Your task to perform on an android device: set an alarm Image 0: 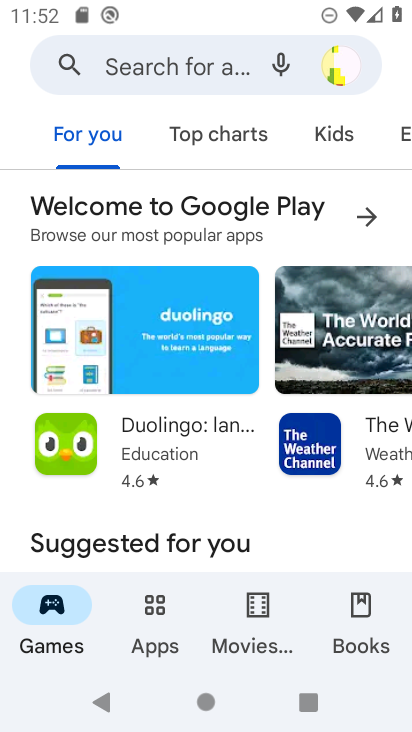
Step 0: press home button
Your task to perform on an android device: set an alarm Image 1: 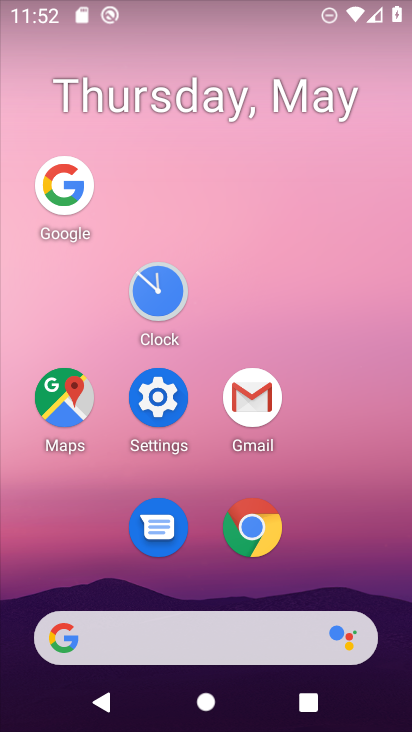
Step 1: click (146, 294)
Your task to perform on an android device: set an alarm Image 2: 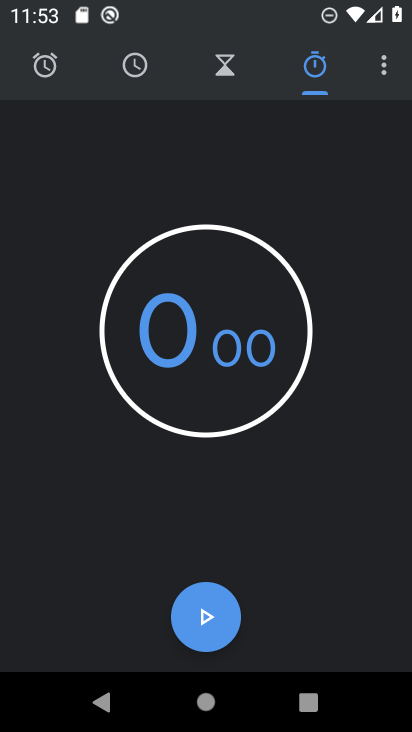
Step 2: click (62, 60)
Your task to perform on an android device: set an alarm Image 3: 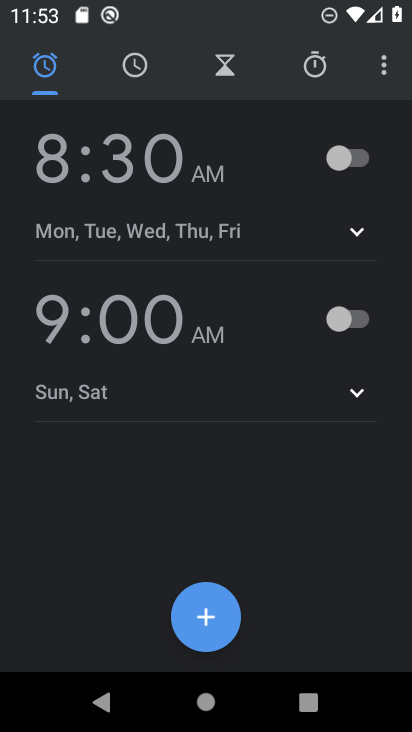
Step 3: click (330, 169)
Your task to perform on an android device: set an alarm Image 4: 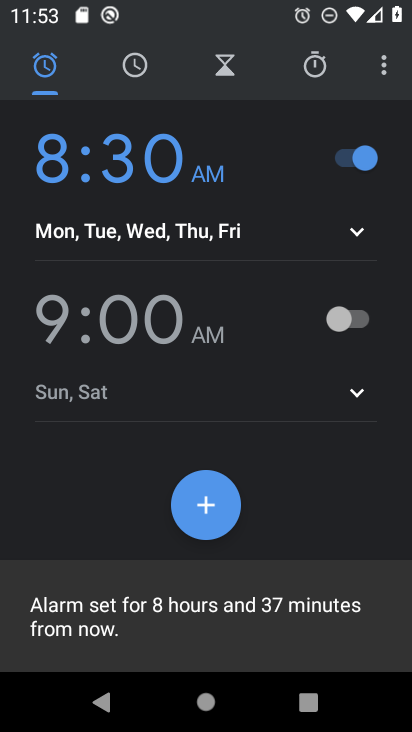
Step 4: task complete